Your task to perform on an android device: Is it going to rain today? Image 0: 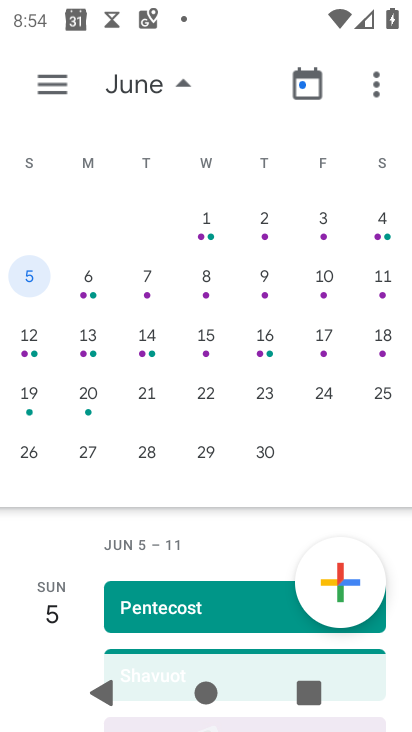
Step 0: press home button
Your task to perform on an android device: Is it going to rain today? Image 1: 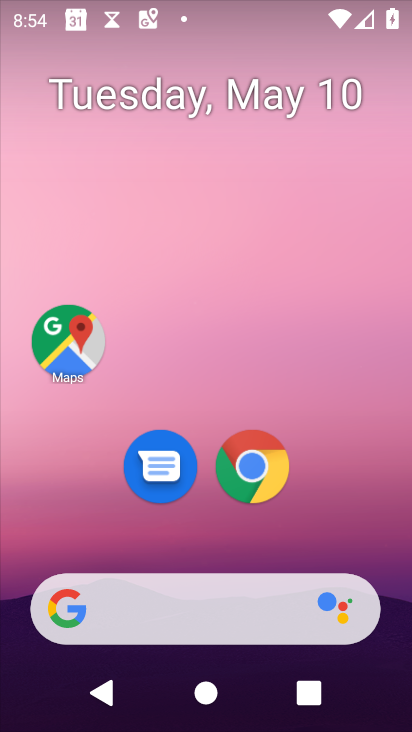
Step 1: drag from (342, 527) to (387, 62)
Your task to perform on an android device: Is it going to rain today? Image 2: 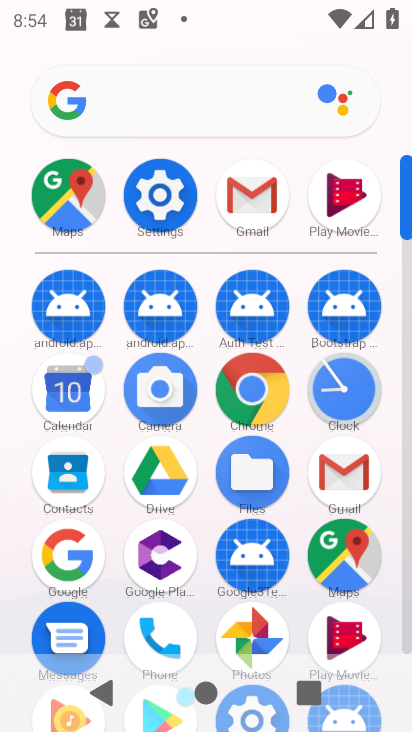
Step 2: click (205, 107)
Your task to perform on an android device: Is it going to rain today? Image 3: 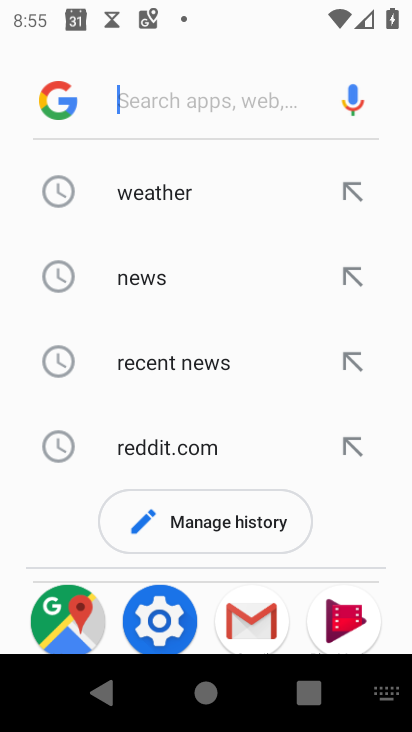
Step 3: type "is it going to rain today"
Your task to perform on an android device: Is it going to rain today? Image 4: 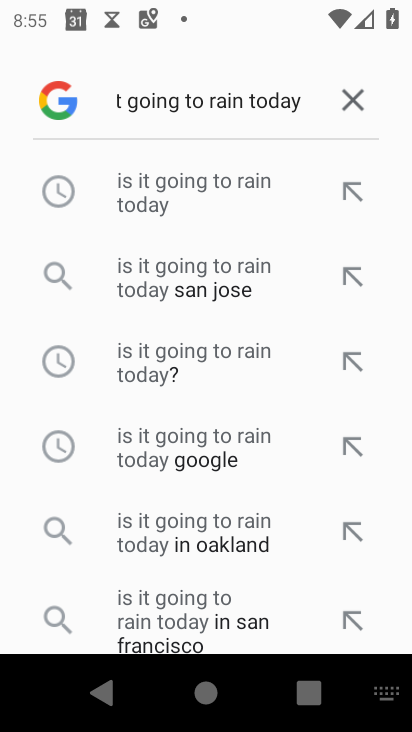
Step 4: click (204, 360)
Your task to perform on an android device: Is it going to rain today? Image 5: 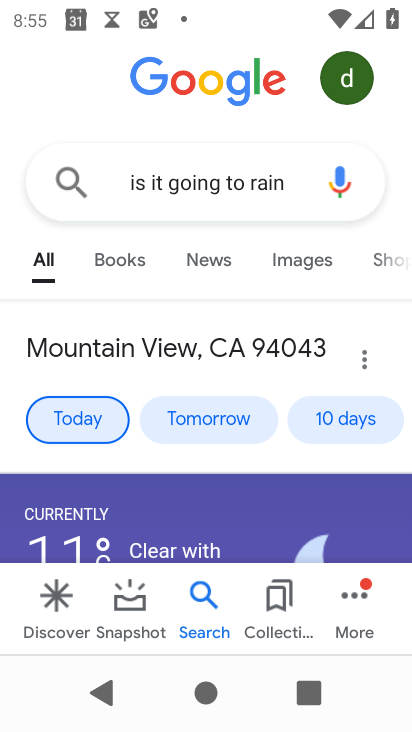
Step 5: task complete